Your task to perform on an android device: check battery use Image 0: 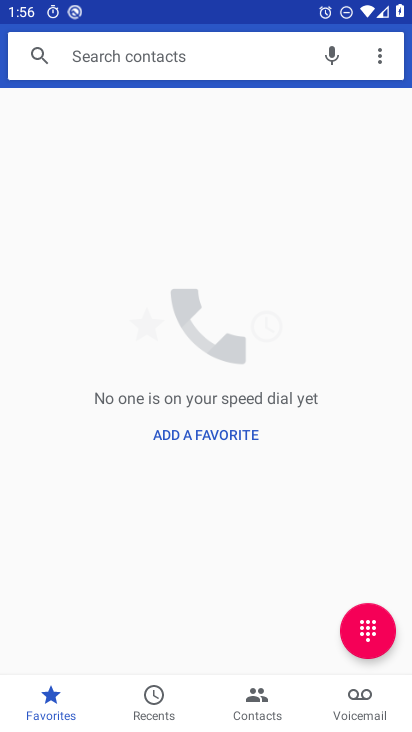
Step 0: press home button
Your task to perform on an android device: check battery use Image 1: 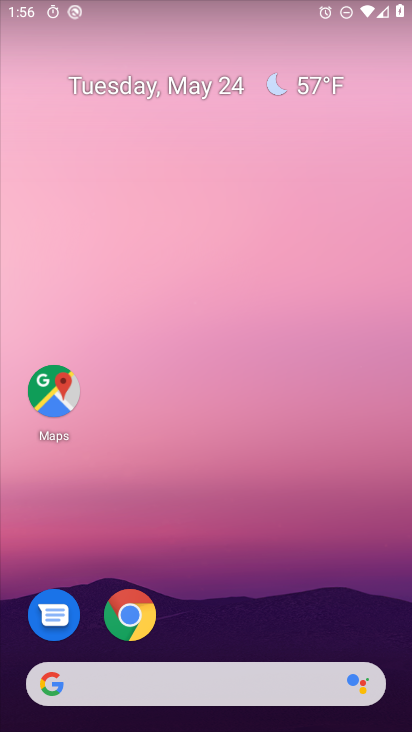
Step 1: drag from (173, 660) to (180, 266)
Your task to perform on an android device: check battery use Image 2: 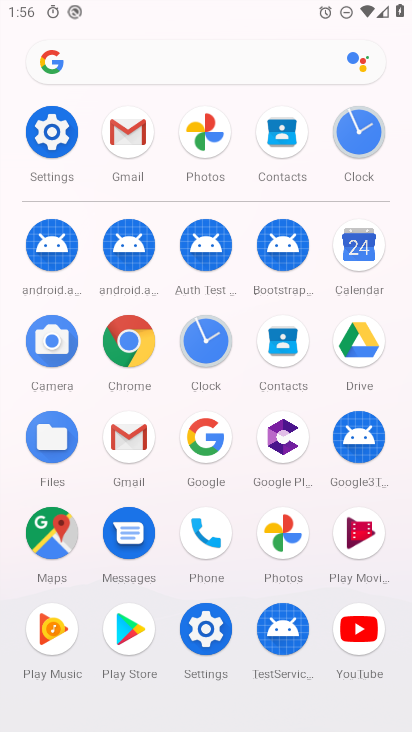
Step 2: click (54, 136)
Your task to perform on an android device: check battery use Image 3: 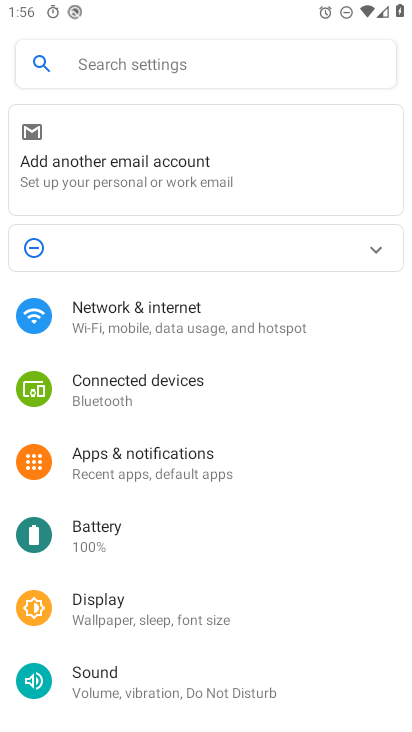
Step 3: click (124, 541)
Your task to perform on an android device: check battery use Image 4: 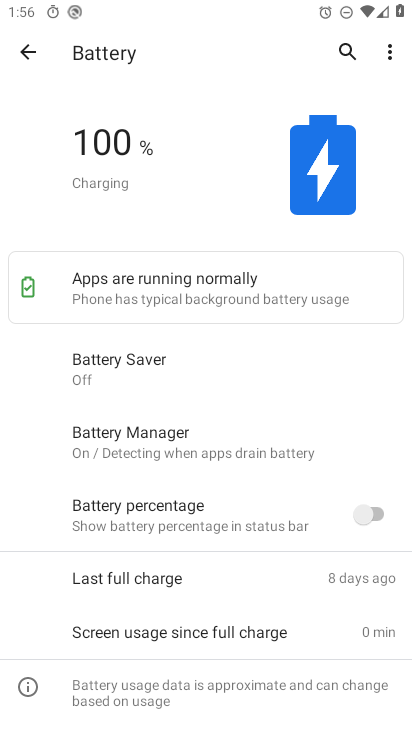
Step 4: task complete